Your task to perform on an android device: turn pop-ups on in chrome Image 0: 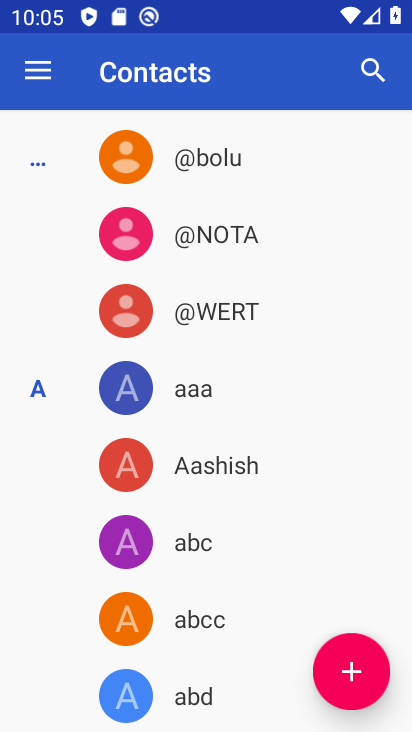
Step 0: press home button
Your task to perform on an android device: turn pop-ups on in chrome Image 1: 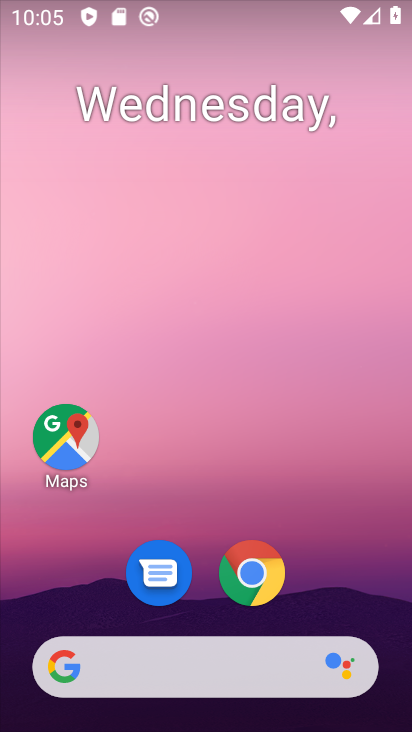
Step 1: click (237, 580)
Your task to perform on an android device: turn pop-ups on in chrome Image 2: 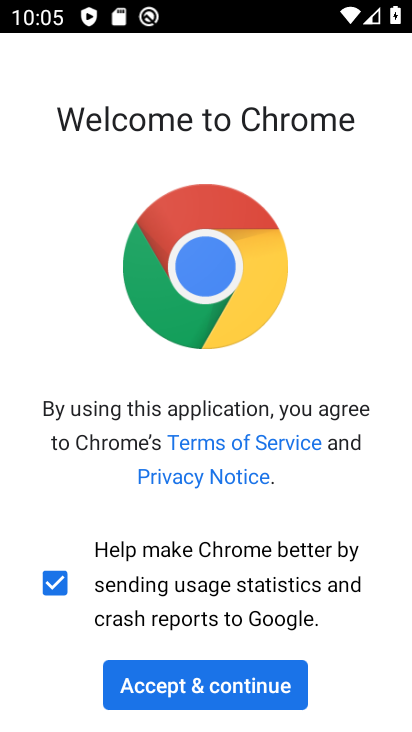
Step 2: click (239, 684)
Your task to perform on an android device: turn pop-ups on in chrome Image 3: 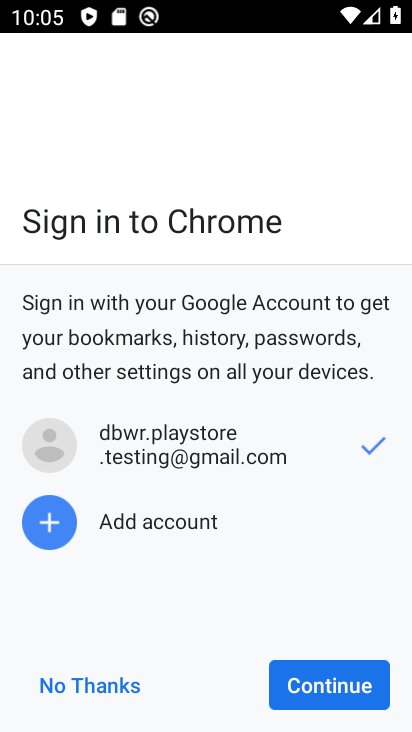
Step 3: click (346, 689)
Your task to perform on an android device: turn pop-ups on in chrome Image 4: 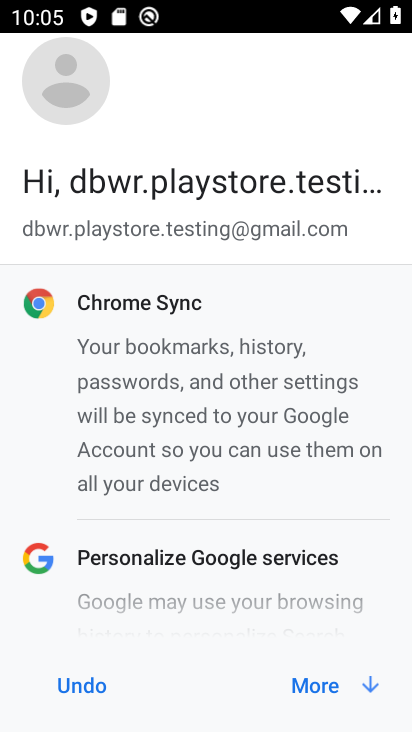
Step 4: click (341, 686)
Your task to perform on an android device: turn pop-ups on in chrome Image 5: 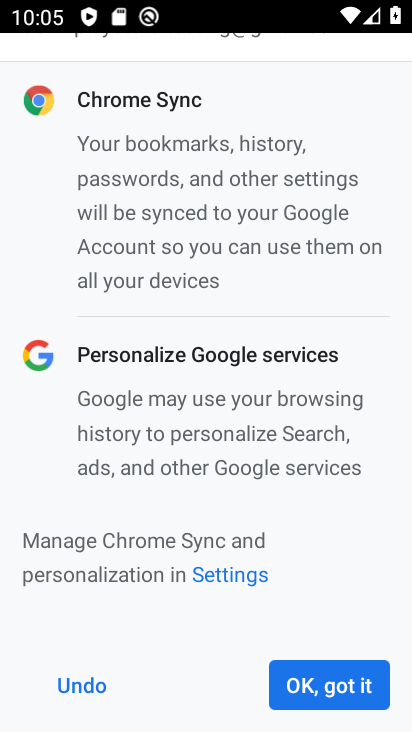
Step 5: click (340, 685)
Your task to perform on an android device: turn pop-ups on in chrome Image 6: 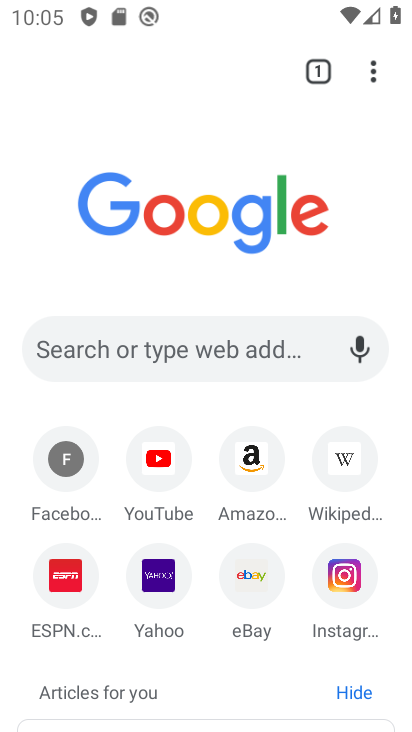
Step 6: click (375, 72)
Your task to perform on an android device: turn pop-ups on in chrome Image 7: 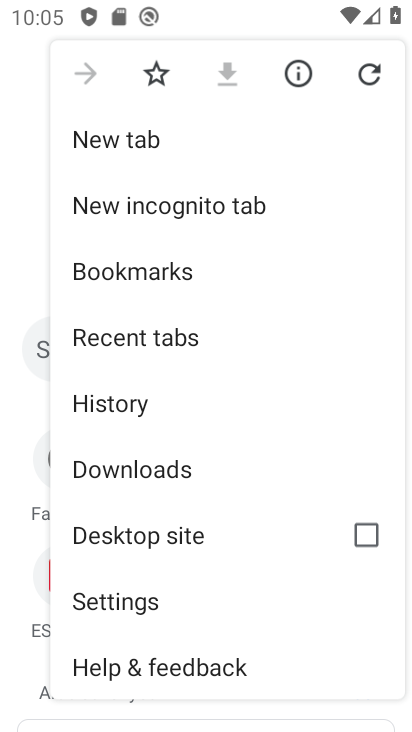
Step 7: drag from (207, 372) to (218, 298)
Your task to perform on an android device: turn pop-ups on in chrome Image 8: 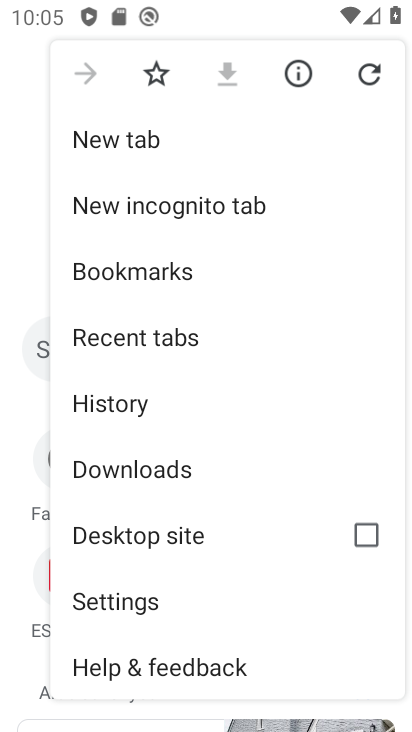
Step 8: click (125, 602)
Your task to perform on an android device: turn pop-ups on in chrome Image 9: 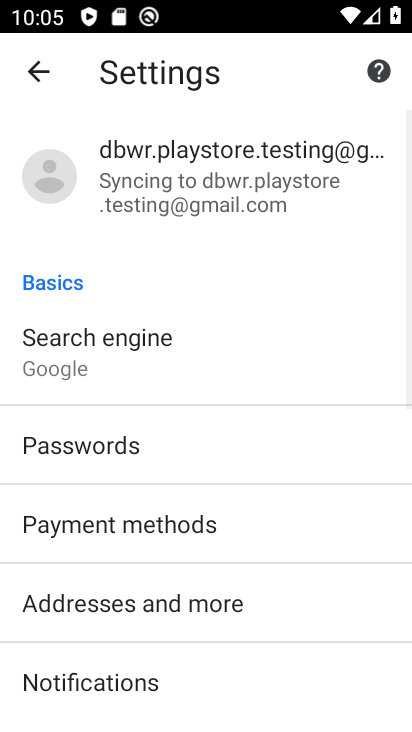
Step 9: drag from (182, 619) to (226, 199)
Your task to perform on an android device: turn pop-ups on in chrome Image 10: 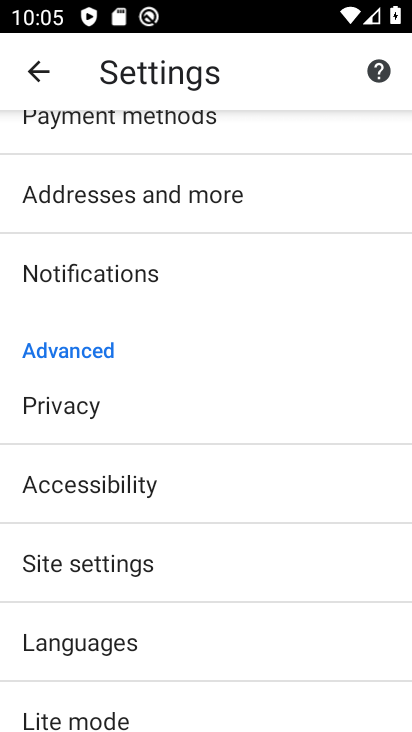
Step 10: drag from (204, 511) to (253, 214)
Your task to perform on an android device: turn pop-ups on in chrome Image 11: 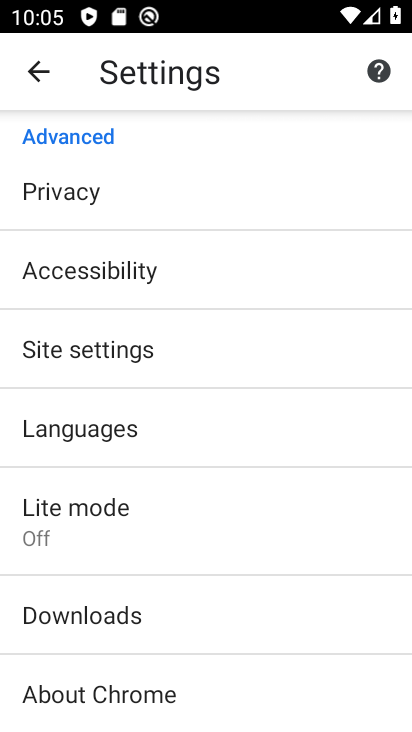
Step 11: click (107, 350)
Your task to perform on an android device: turn pop-ups on in chrome Image 12: 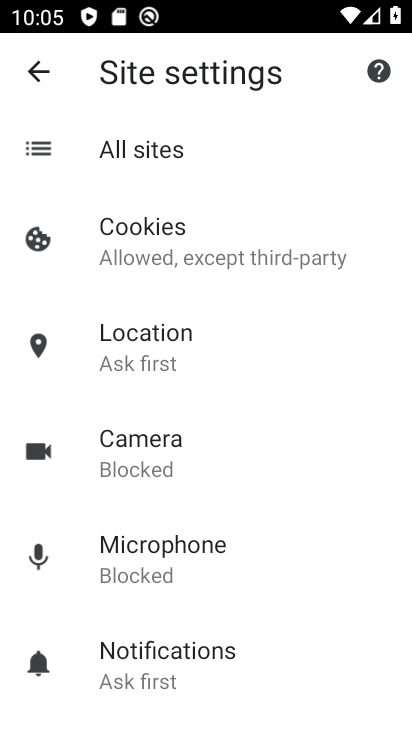
Step 12: drag from (153, 660) to (209, 264)
Your task to perform on an android device: turn pop-ups on in chrome Image 13: 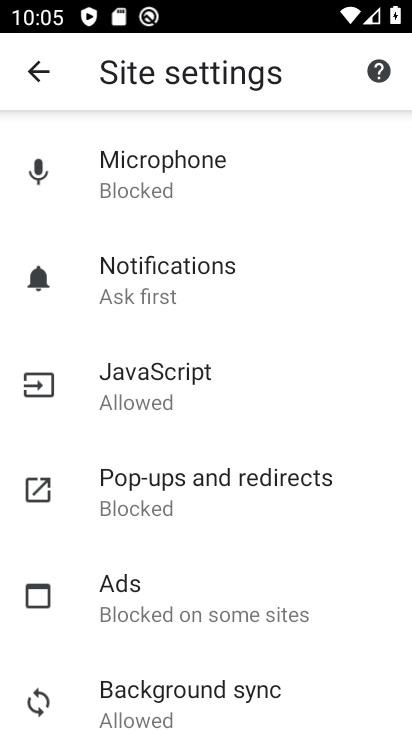
Step 13: click (177, 476)
Your task to perform on an android device: turn pop-ups on in chrome Image 14: 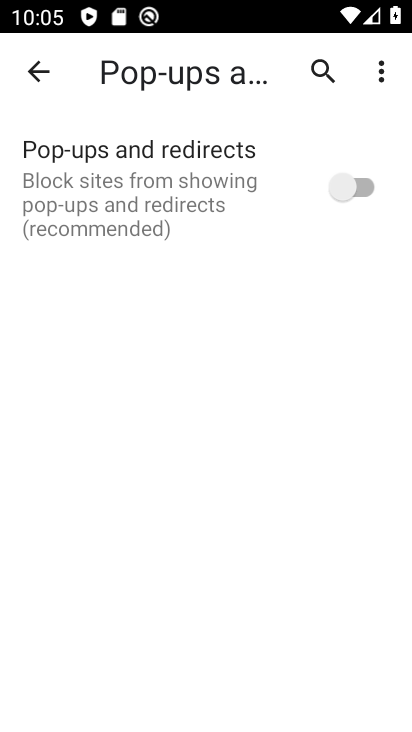
Step 14: click (367, 188)
Your task to perform on an android device: turn pop-ups on in chrome Image 15: 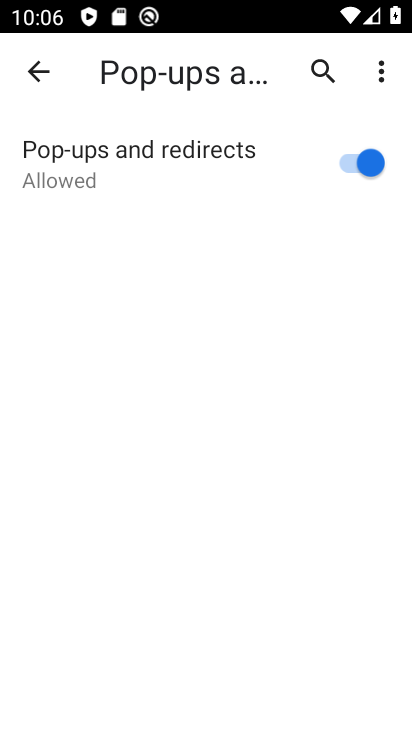
Step 15: task complete